Your task to perform on an android device: Open Youtube and go to "Your channel" Image 0: 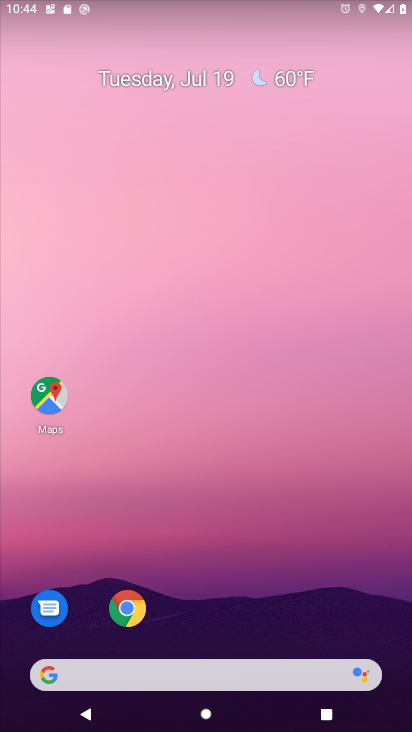
Step 0: drag from (179, 630) to (132, 199)
Your task to perform on an android device: Open Youtube and go to "Your channel" Image 1: 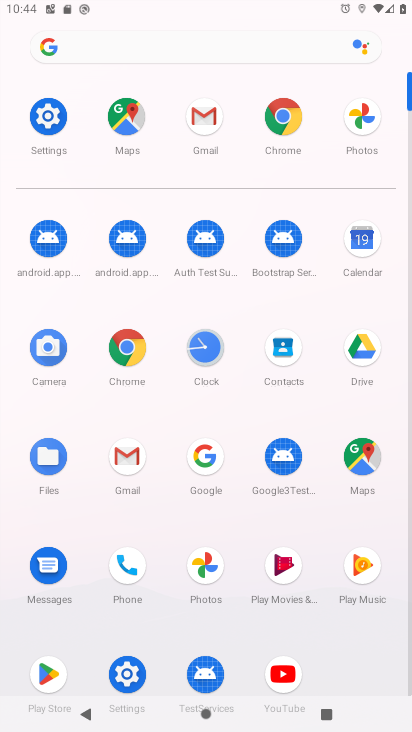
Step 1: click (289, 676)
Your task to perform on an android device: Open Youtube and go to "Your channel" Image 2: 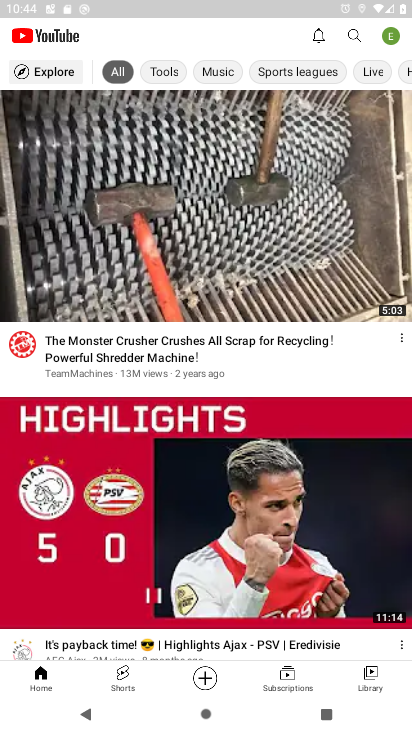
Step 2: click (385, 37)
Your task to perform on an android device: Open Youtube and go to "Your channel" Image 3: 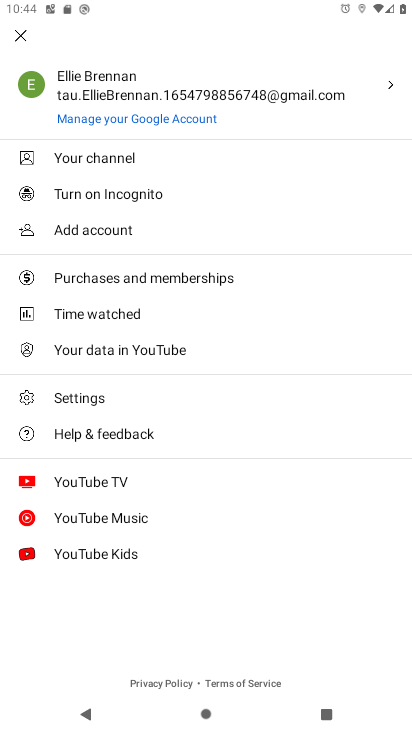
Step 3: click (76, 151)
Your task to perform on an android device: Open Youtube and go to "Your channel" Image 4: 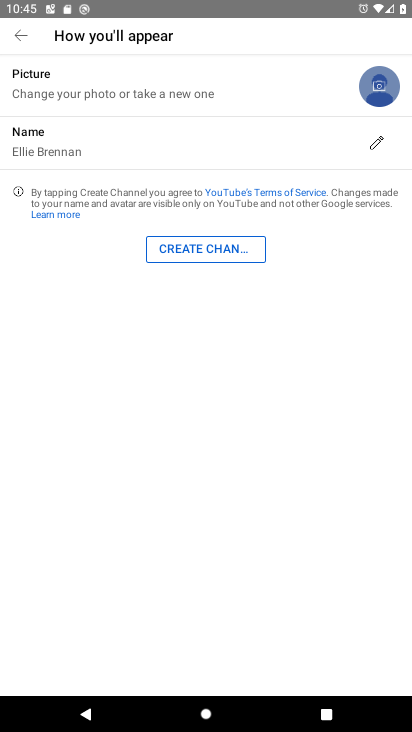
Step 4: task complete